Your task to perform on an android device: Open the calendar app, open the side menu, and click the "Day" option Image 0: 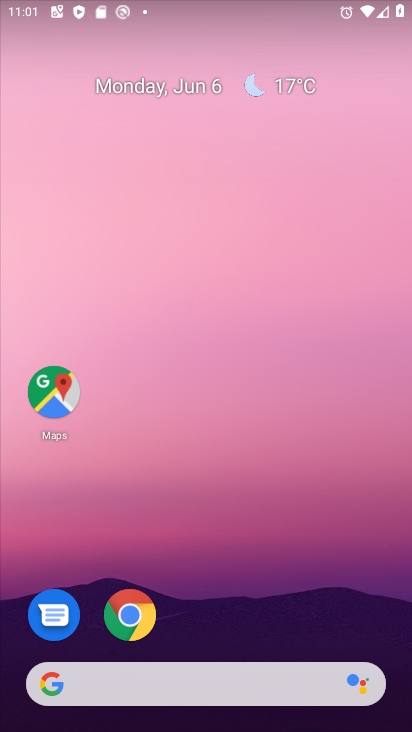
Step 0: press home button
Your task to perform on an android device: Open the calendar app, open the side menu, and click the "Day" option Image 1: 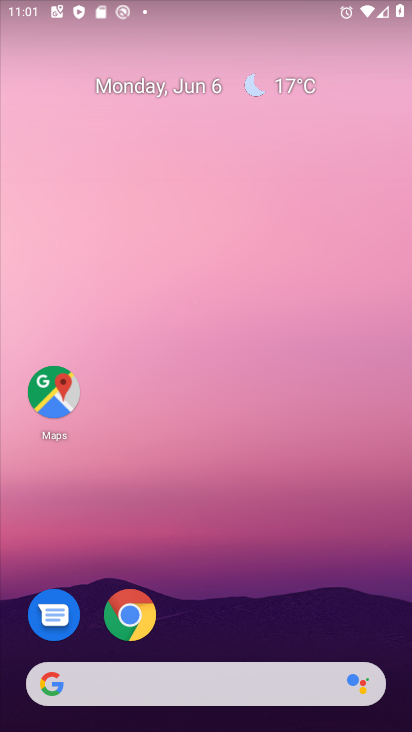
Step 1: drag from (220, 646) to (280, 38)
Your task to perform on an android device: Open the calendar app, open the side menu, and click the "Day" option Image 2: 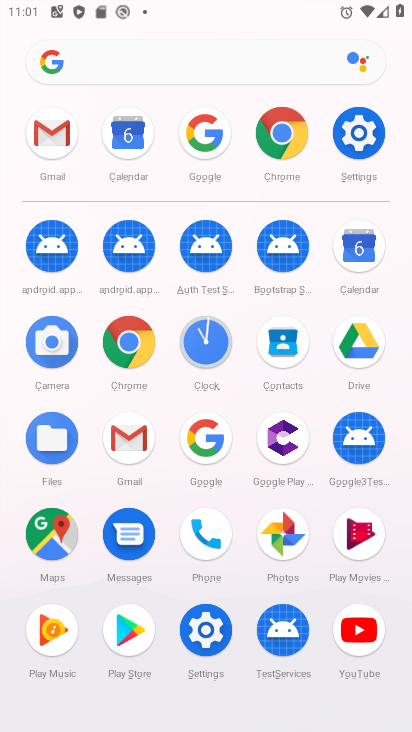
Step 2: click (358, 244)
Your task to perform on an android device: Open the calendar app, open the side menu, and click the "Day" option Image 3: 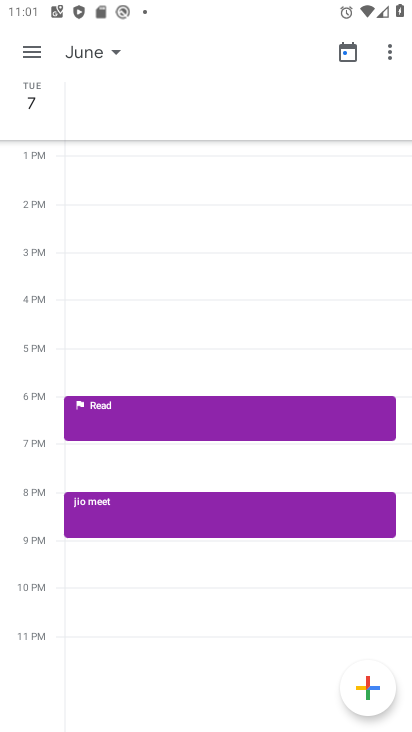
Step 3: click (32, 49)
Your task to perform on an android device: Open the calendar app, open the side menu, and click the "Day" option Image 4: 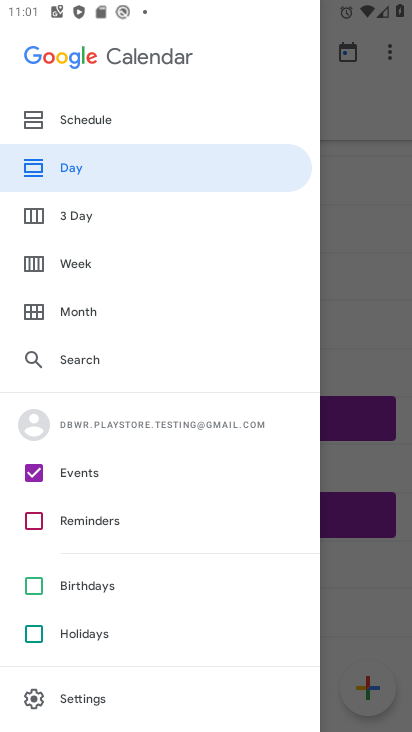
Step 4: click (94, 163)
Your task to perform on an android device: Open the calendar app, open the side menu, and click the "Day" option Image 5: 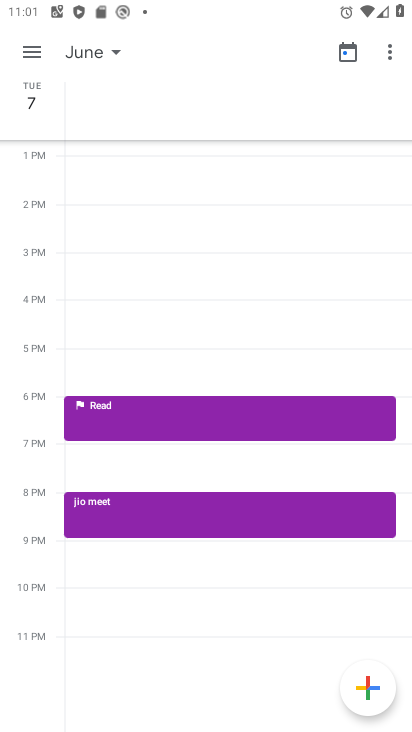
Step 5: task complete